Your task to perform on an android device: change keyboard looks Image 0: 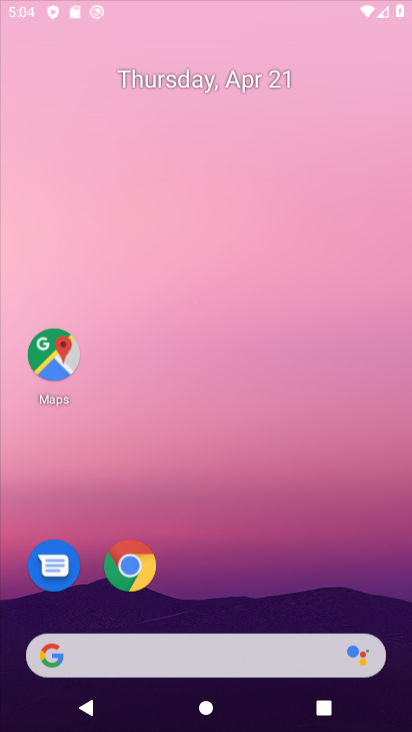
Step 0: drag from (313, 241) to (287, 19)
Your task to perform on an android device: change keyboard looks Image 1: 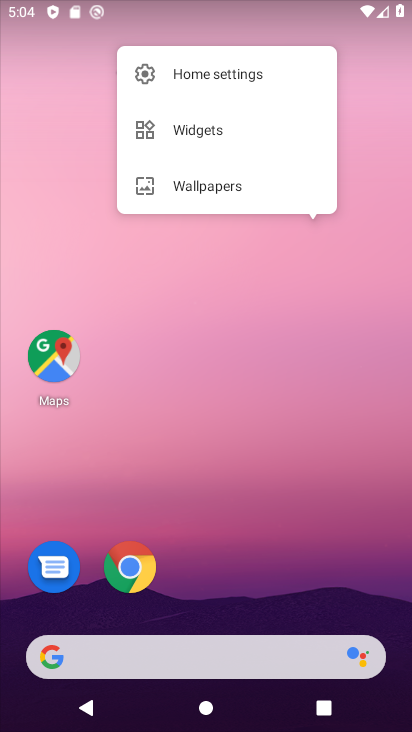
Step 1: click (236, 536)
Your task to perform on an android device: change keyboard looks Image 2: 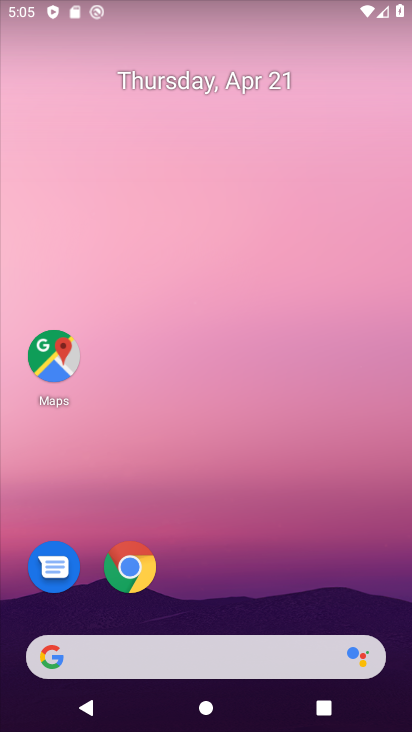
Step 2: drag from (237, 600) to (385, 11)
Your task to perform on an android device: change keyboard looks Image 3: 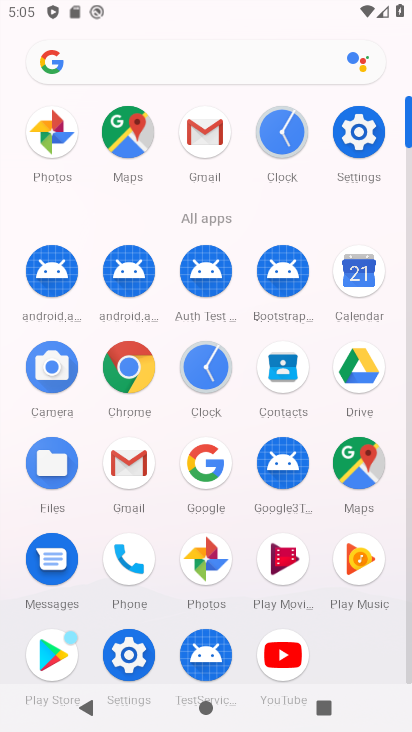
Step 3: click (366, 155)
Your task to perform on an android device: change keyboard looks Image 4: 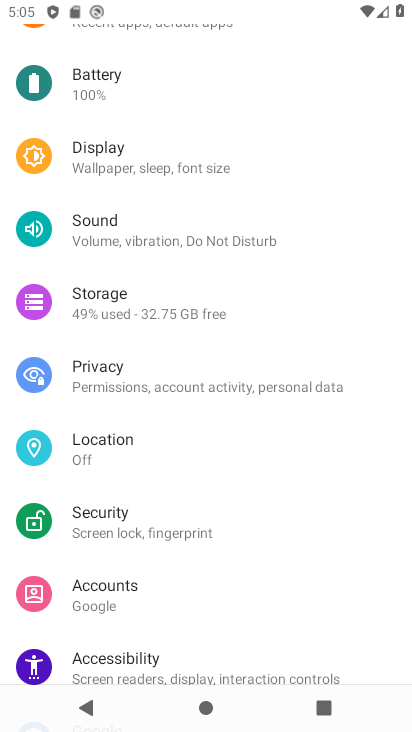
Step 4: drag from (131, 603) to (212, 105)
Your task to perform on an android device: change keyboard looks Image 5: 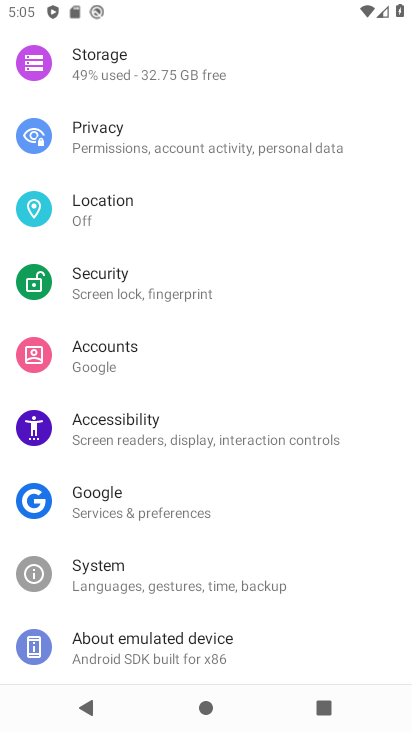
Step 5: click (146, 585)
Your task to perform on an android device: change keyboard looks Image 6: 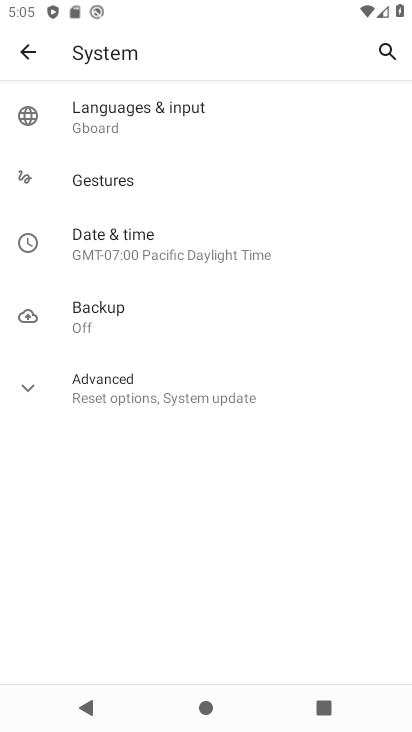
Step 6: click (143, 119)
Your task to perform on an android device: change keyboard looks Image 7: 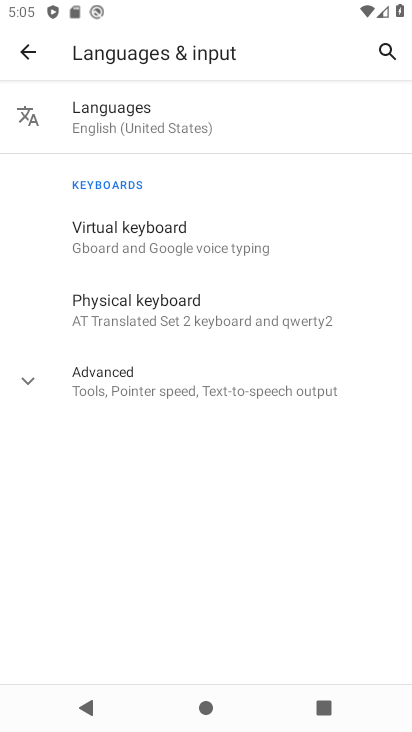
Step 7: click (153, 245)
Your task to perform on an android device: change keyboard looks Image 8: 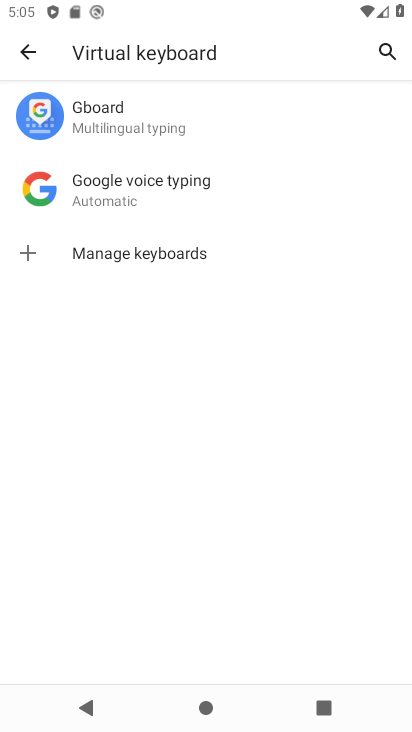
Step 8: click (139, 128)
Your task to perform on an android device: change keyboard looks Image 9: 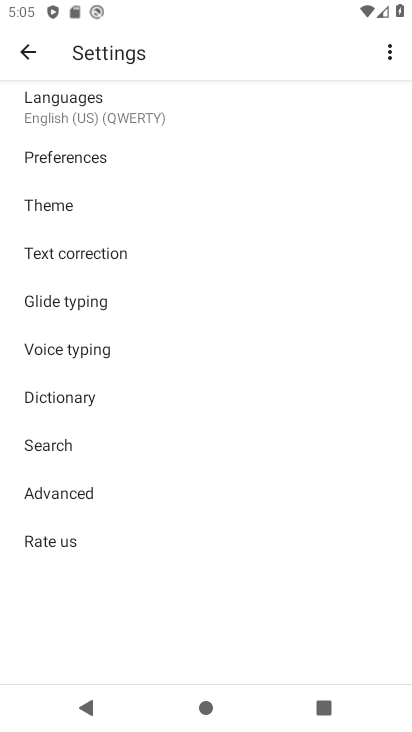
Step 9: click (45, 204)
Your task to perform on an android device: change keyboard looks Image 10: 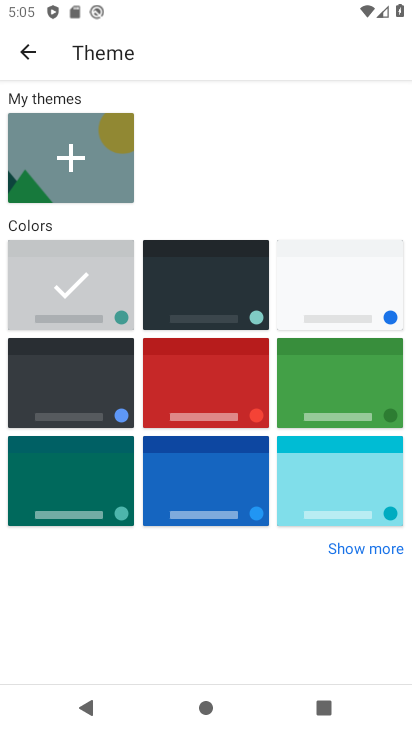
Step 10: click (201, 284)
Your task to perform on an android device: change keyboard looks Image 11: 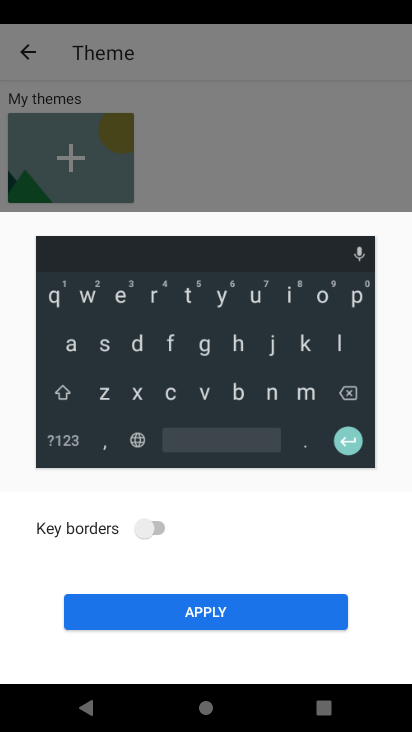
Step 11: click (211, 613)
Your task to perform on an android device: change keyboard looks Image 12: 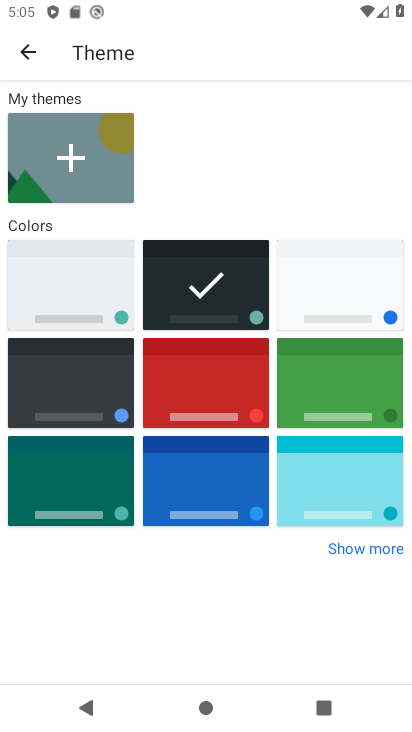
Step 12: task complete